Your task to perform on an android device: toggle wifi Image 0: 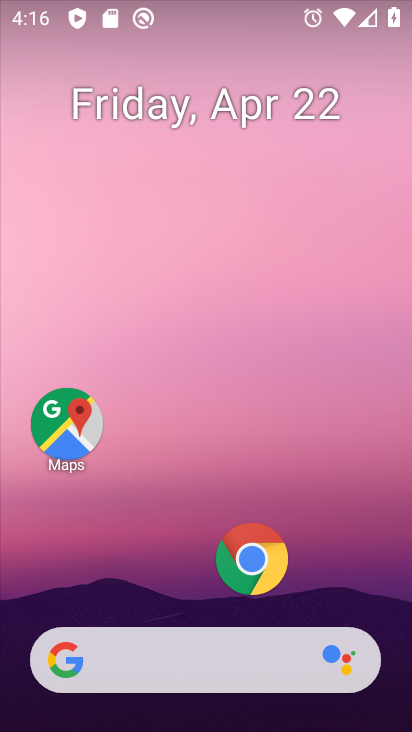
Step 0: click (326, 453)
Your task to perform on an android device: toggle wifi Image 1: 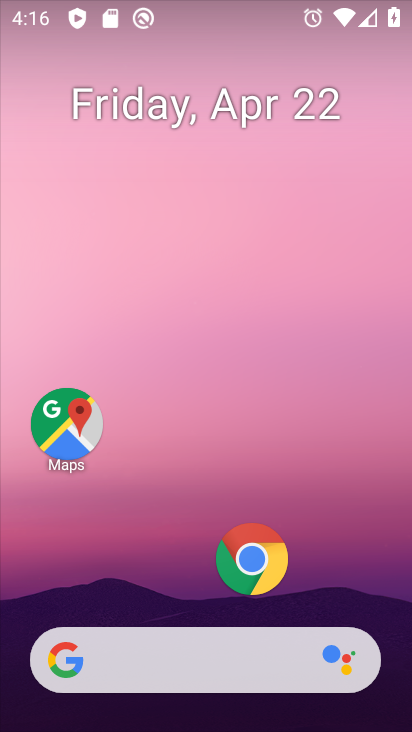
Step 1: drag from (168, 556) to (187, 287)
Your task to perform on an android device: toggle wifi Image 2: 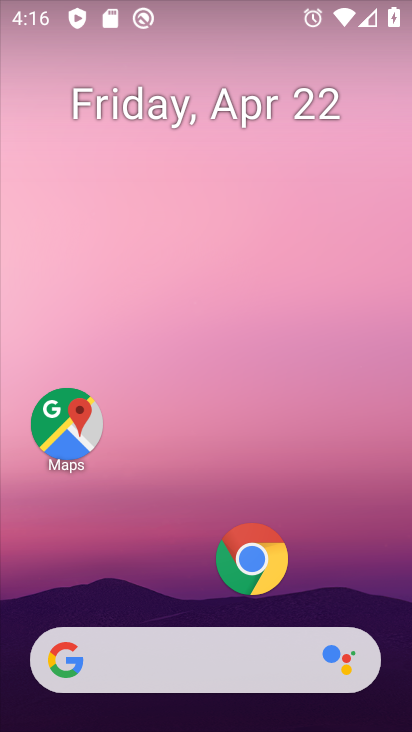
Step 2: drag from (123, 609) to (167, 26)
Your task to perform on an android device: toggle wifi Image 3: 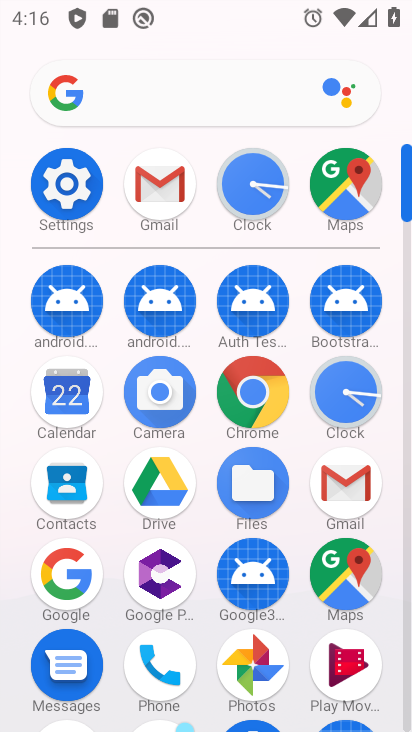
Step 3: click (80, 210)
Your task to perform on an android device: toggle wifi Image 4: 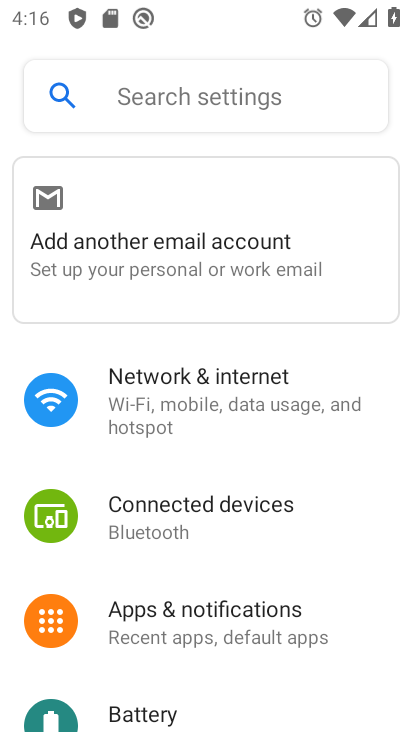
Step 4: click (177, 426)
Your task to perform on an android device: toggle wifi Image 5: 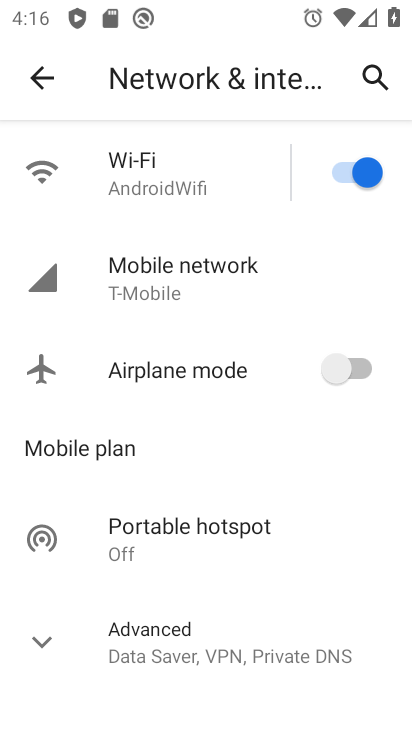
Step 5: click (346, 170)
Your task to perform on an android device: toggle wifi Image 6: 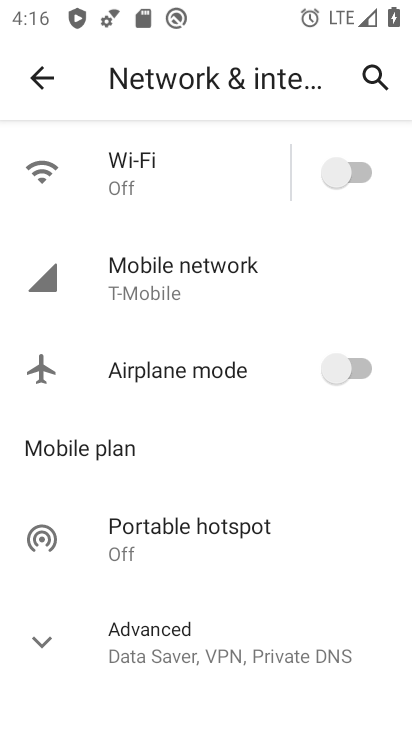
Step 6: task complete